Your task to perform on an android device: Is it going to rain tomorrow? Image 0: 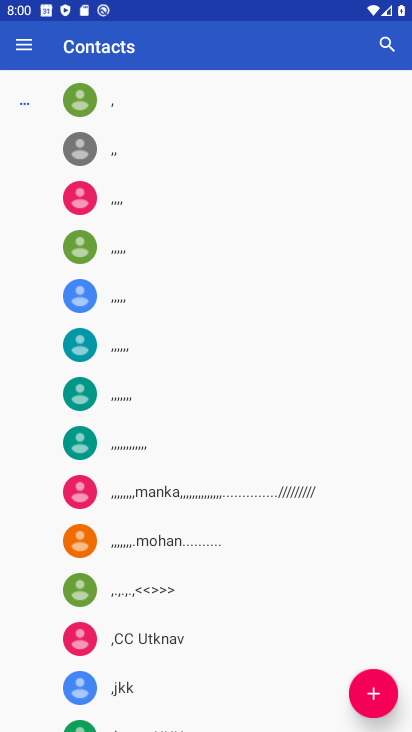
Step 0: press home button
Your task to perform on an android device: Is it going to rain tomorrow? Image 1: 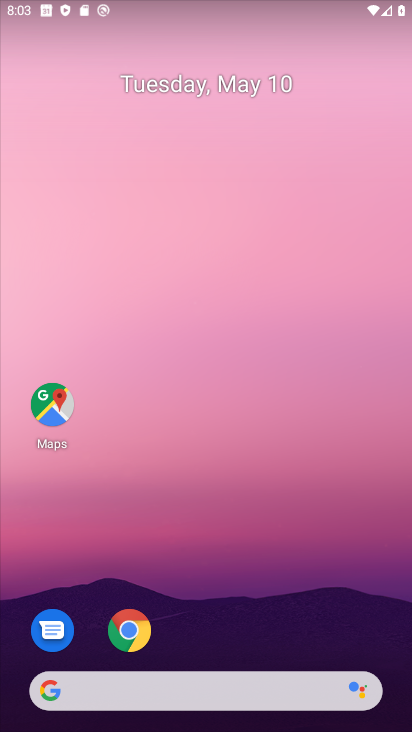
Step 1: drag from (162, 718) to (7, 692)
Your task to perform on an android device: Is it going to rain tomorrow? Image 2: 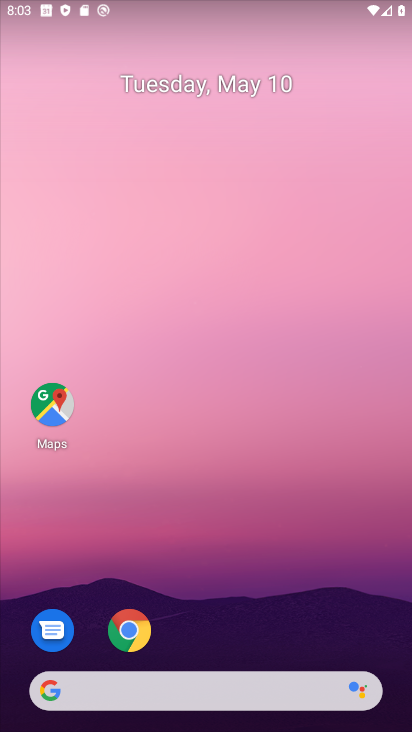
Step 2: click (177, 695)
Your task to perform on an android device: Is it going to rain tomorrow? Image 3: 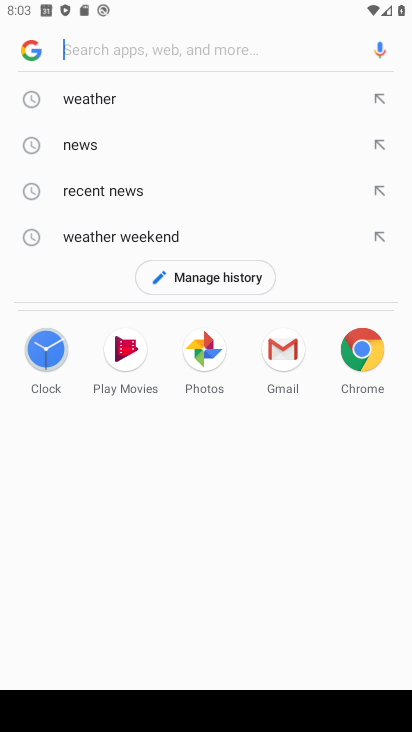
Step 3: type " Is it going to rain tomorrow?"
Your task to perform on an android device: Is it going to rain tomorrow? Image 4: 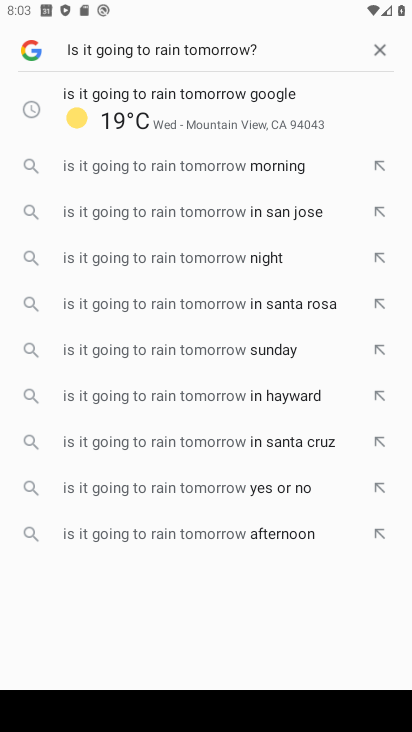
Step 4: click (284, 103)
Your task to perform on an android device: Is it going to rain tomorrow? Image 5: 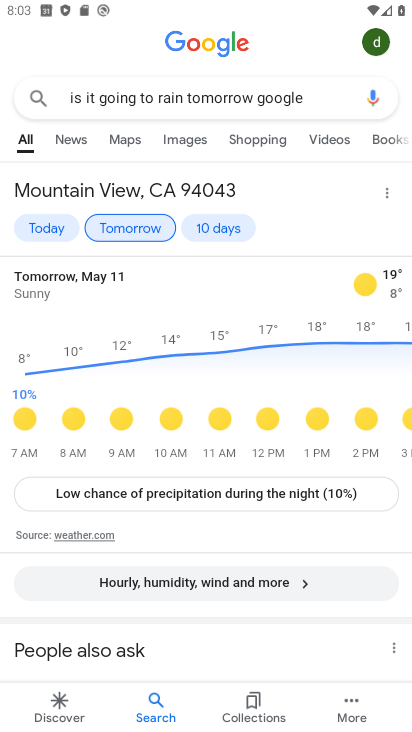
Step 5: task complete